Your task to perform on an android device: visit the assistant section in the google photos Image 0: 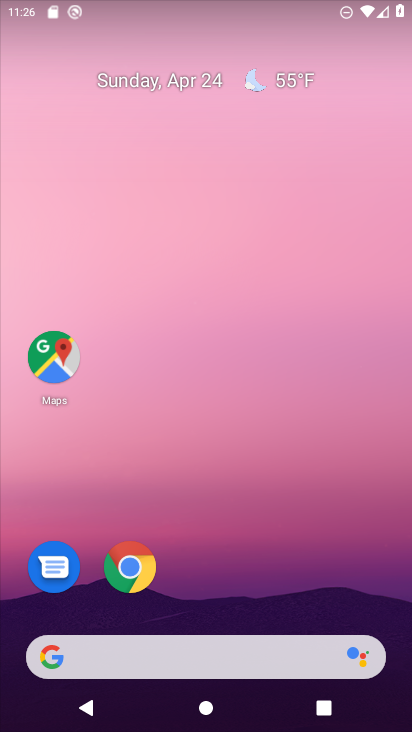
Step 0: drag from (381, 568) to (312, 44)
Your task to perform on an android device: visit the assistant section in the google photos Image 1: 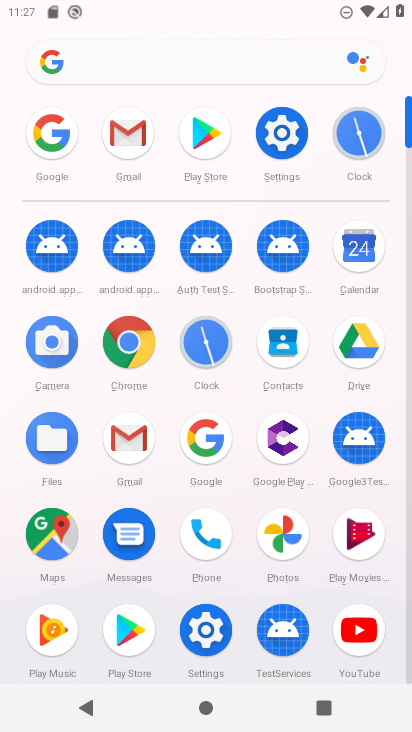
Step 1: click (276, 536)
Your task to perform on an android device: visit the assistant section in the google photos Image 2: 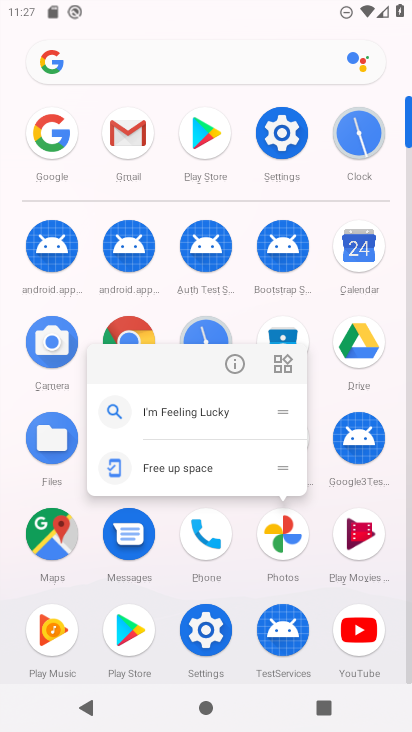
Step 2: click (276, 537)
Your task to perform on an android device: visit the assistant section in the google photos Image 3: 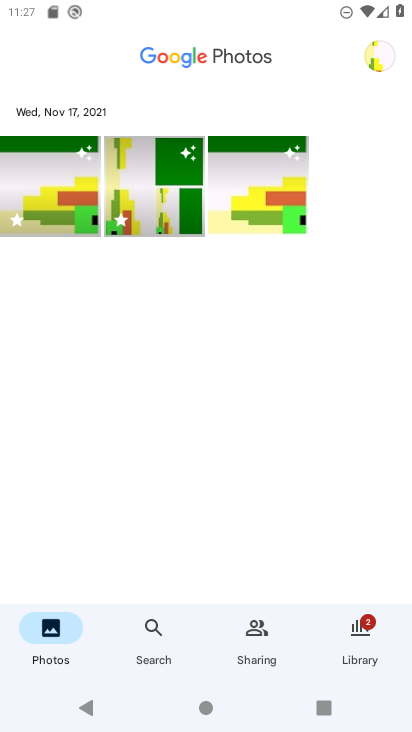
Step 3: task complete